Your task to perform on an android device: Open the calendar and show me this week's events? Image 0: 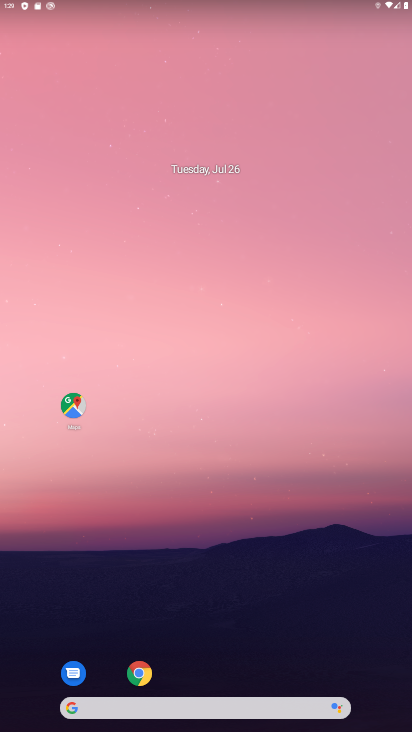
Step 0: drag from (251, 670) to (185, 186)
Your task to perform on an android device: Open the calendar and show me this week's events? Image 1: 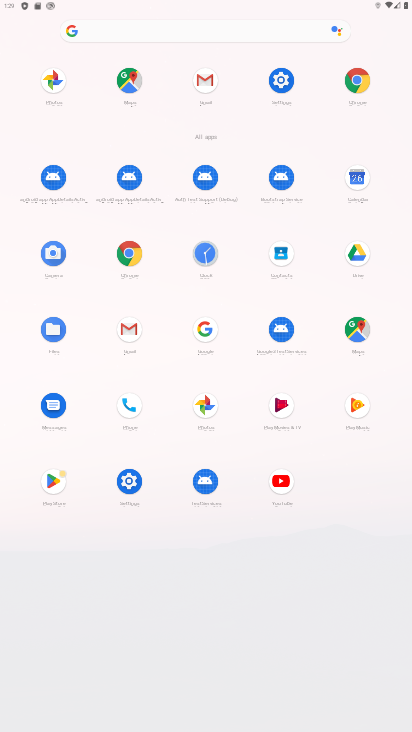
Step 1: click (363, 174)
Your task to perform on an android device: Open the calendar and show me this week's events? Image 2: 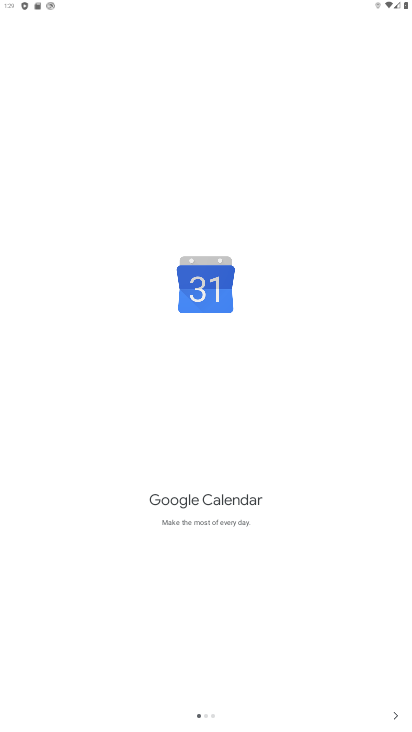
Step 2: click (397, 718)
Your task to perform on an android device: Open the calendar and show me this week's events? Image 3: 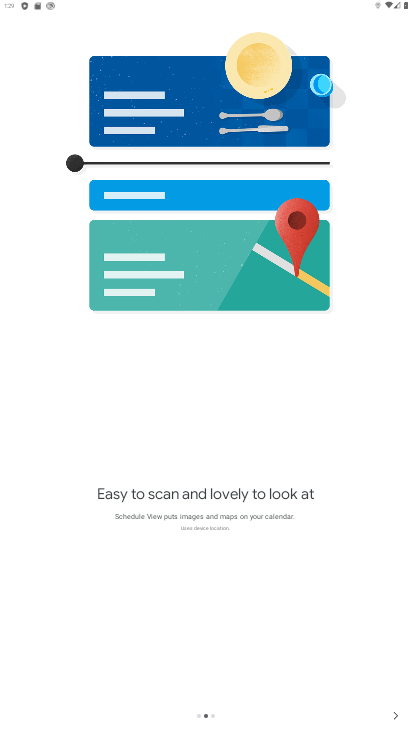
Step 3: click (397, 718)
Your task to perform on an android device: Open the calendar and show me this week's events? Image 4: 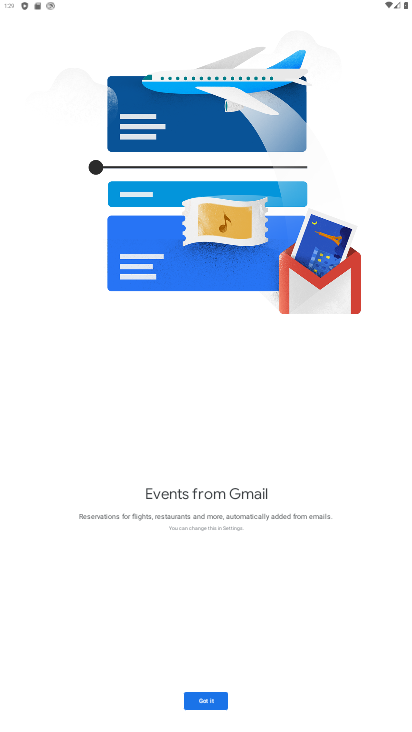
Step 4: click (202, 705)
Your task to perform on an android device: Open the calendar and show me this week's events? Image 5: 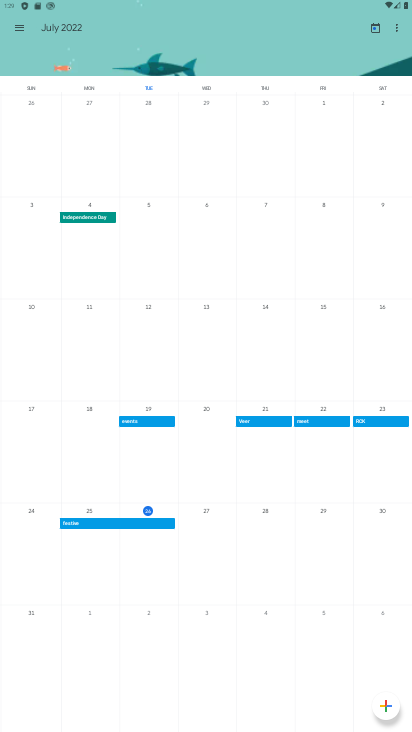
Step 5: click (17, 24)
Your task to perform on an android device: Open the calendar and show me this week's events? Image 6: 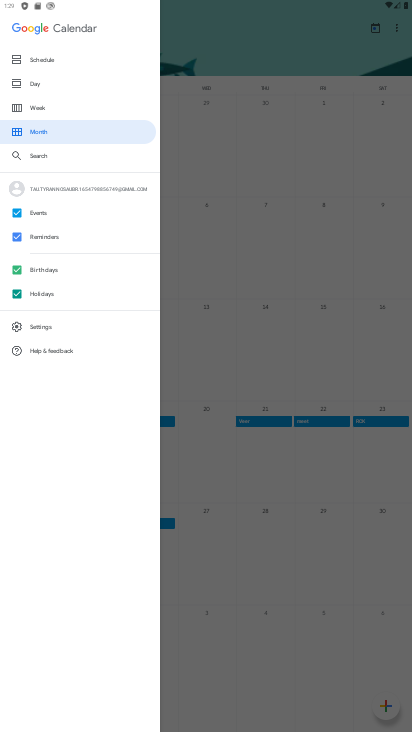
Step 6: click (14, 293)
Your task to perform on an android device: Open the calendar and show me this week's events? Image 7: 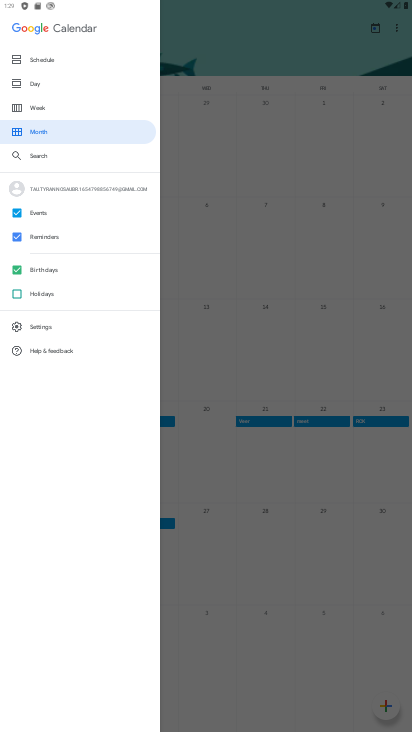
Step 7: click (14, 268)
Your task to perform on an android device: Open the calendar and show me this week's events? Image 8: 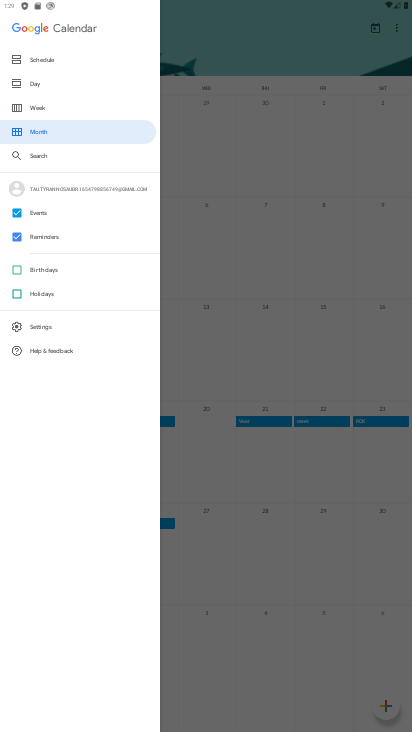
Step 8: click (12, 235)
Your task to perform on an android device: Open the calendar and show me this week's events? Image 9: 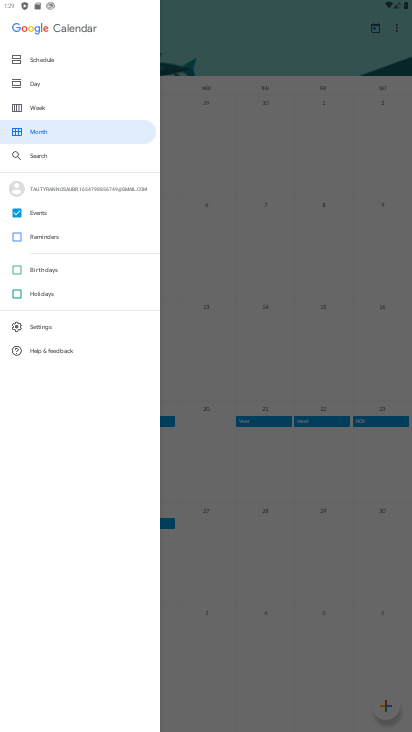
Step 9: click (15, 210)
Your task to perform on an android device: Open the calendar and show me this week's events? Image 10: 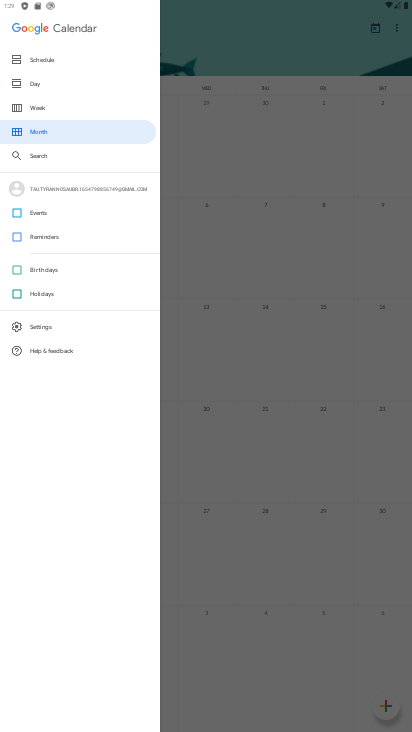
Step 10: click (18, 213)
Your task to perform on an android device: Open the calendar and show me this week's events? Image 11: 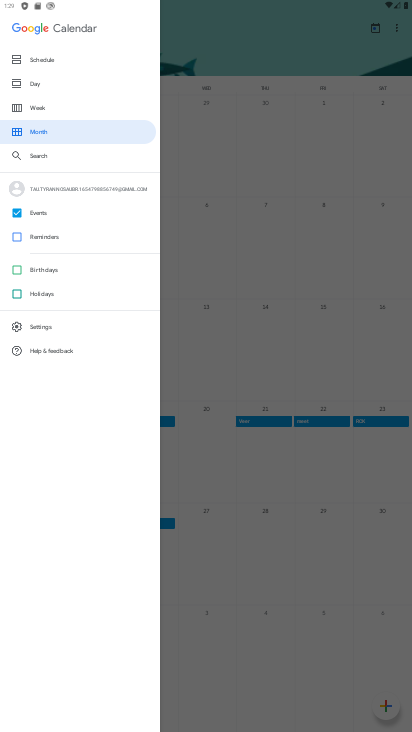
Step 11: click (35, 109)
Your task to perform on an android device: Open the calendar and show me this week's events? Image 12: 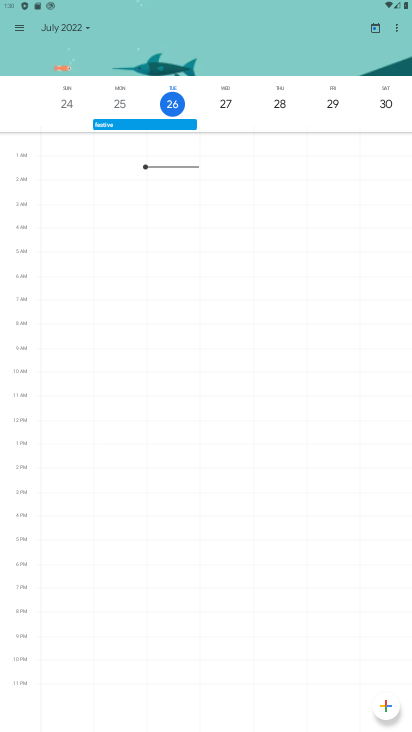
Step 12: task complete